Your task to perform on an android device: Open the stopwatch Image 0: 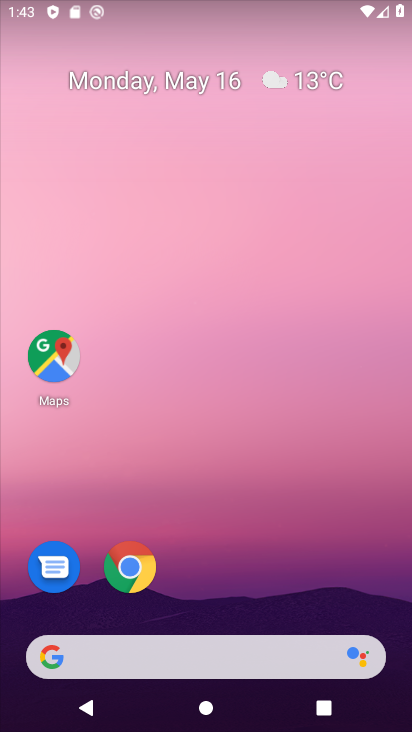
Step 0: drag from (281, 513) to (221, 43)
Your task to perform on an android device: Open the stopwatch Image 1: 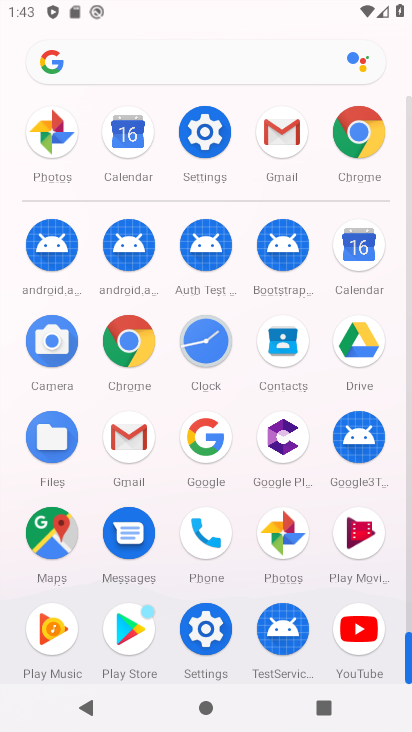
Step 1: click (208, 342)
Your task to perform on an android device: Open the stopwatch Image 2: 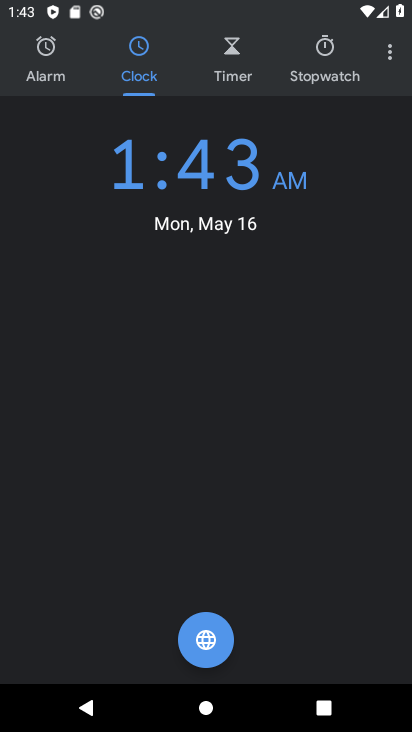
Step 2: click (326, 44)
Your task to perform on an android device: Open the stopwatch Image 3: 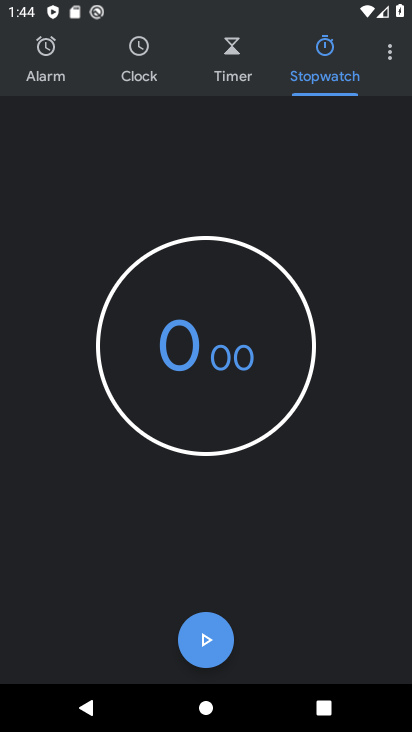
Step 3: task complete